Your task to perform on an android device: Open accessibility settings Image 0: 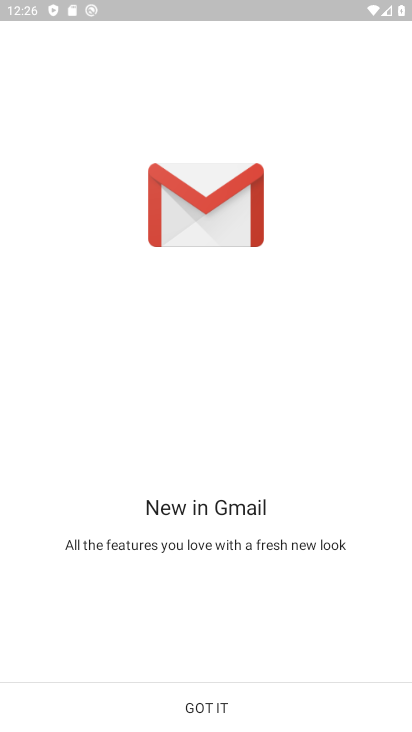
Step 0: press home button
Your task to perform on an android device: Open accessibility settings Image 1: 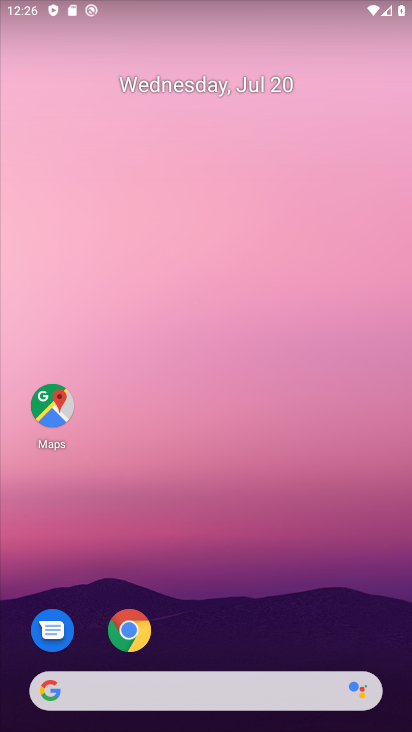
Step 1: drag from (238, 603) to (288, 91)
Your task to perform on an android device: Open accessibility settings Image 2: 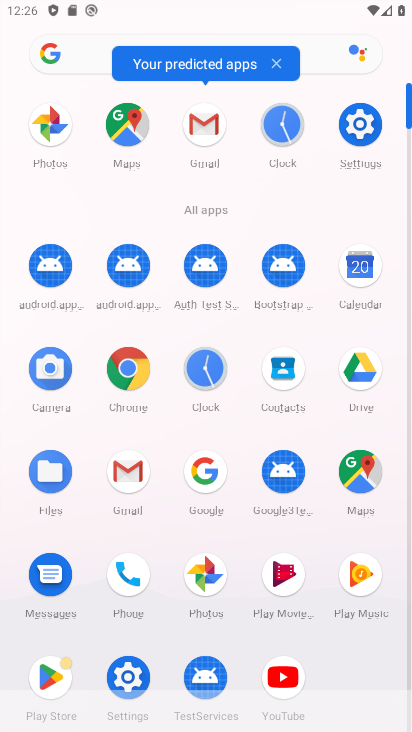
Step 2: click (369, 135)
Your task to perform on an android device: Open accessibility settings Image 3: 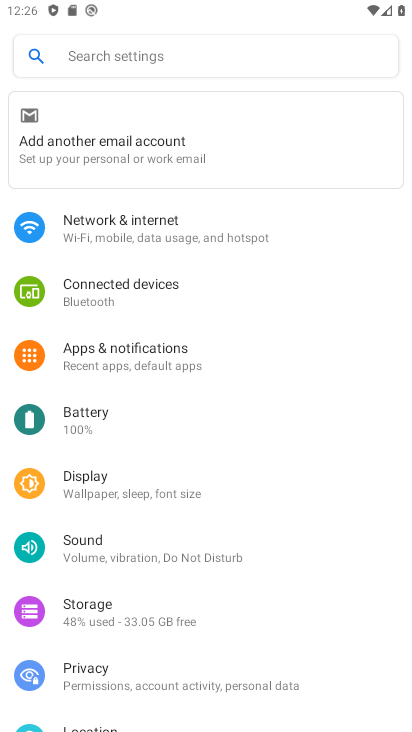
Step 3: drag from (119, 659) to (101, 279)
Your task to perform on an android device: Open accessibility settings Image 4: 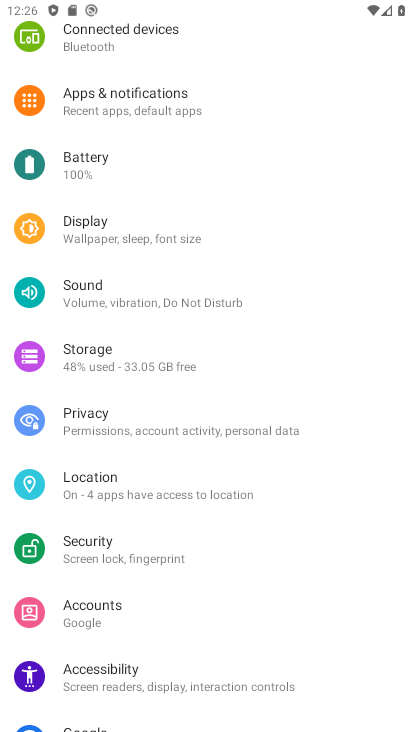
Step 4: click (118, 673)
Your task to perform on an android device: Open accessibility settings Image 5: 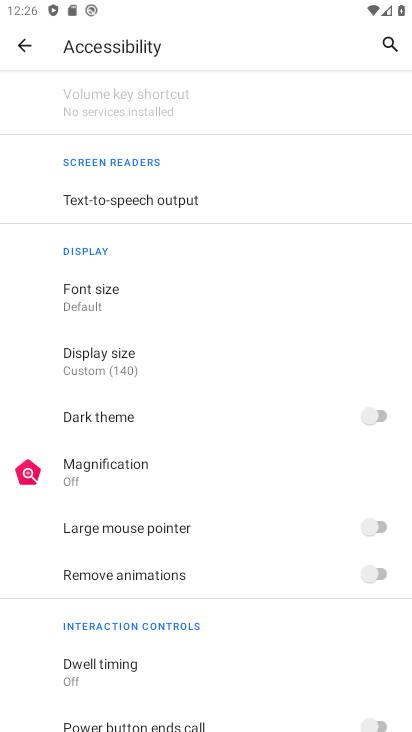
Step 5: task complete